Your task to perform on an android device: turn off data saver in the chrome app Image 0: 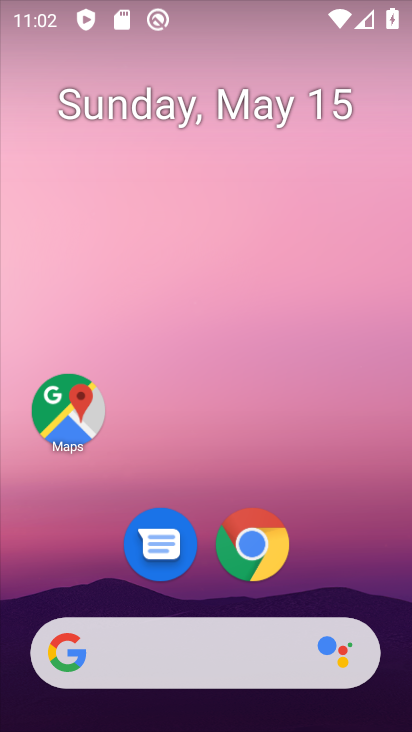
Step 0: click (264, 538)
Your task to perform on an android device: turn off data saver in the chrome app Image 1: 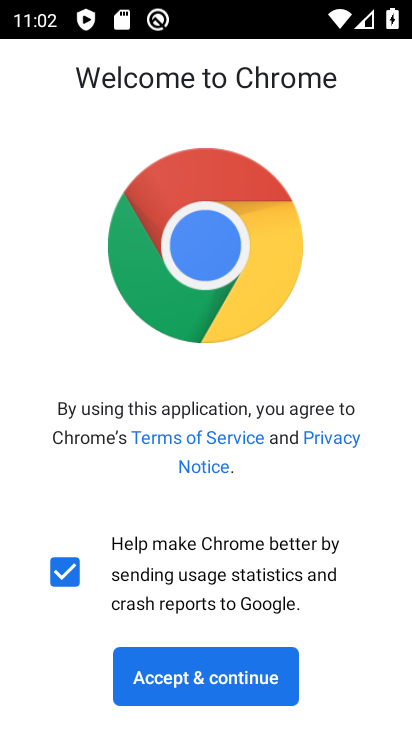
Step 1: click (267, 678)
Your task to perform on an android device: turn off data saver in the chrome app Image 2: 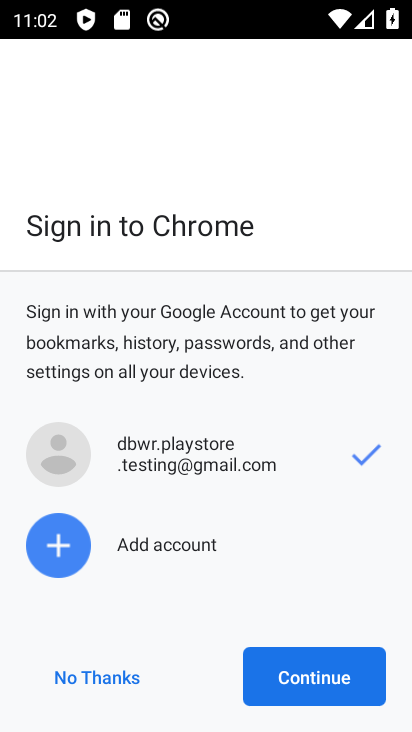
Step 2: click (267, 678)
Your task to perform on an android device: turn off data saver in the chrome app Image 3: 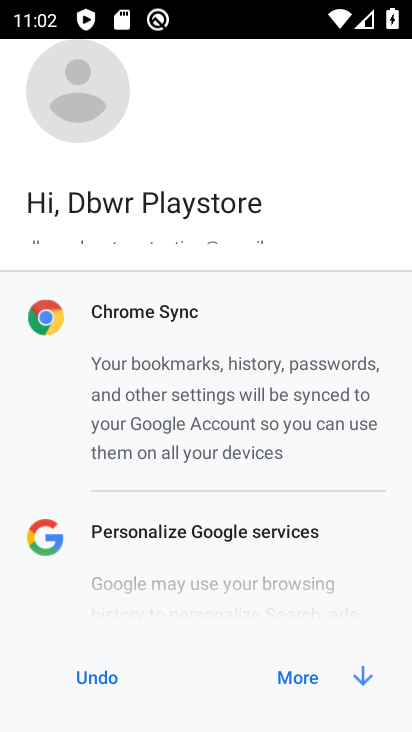
Step 3: click (267, 678)
Your task to perform on an android device: turn off data saver in the chrome app Image 4: 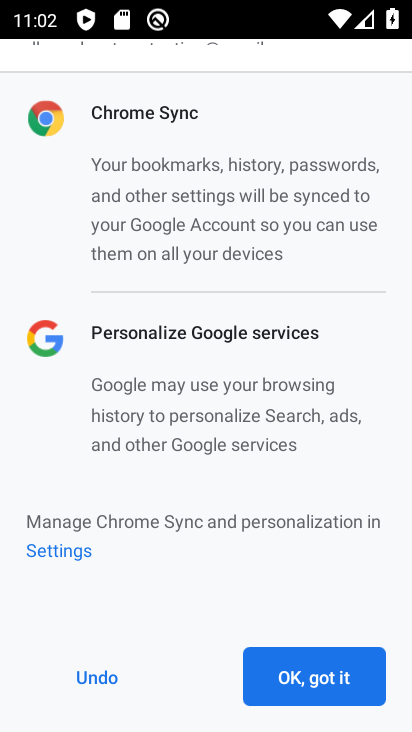
Step 4: click (267, 678)
Your task to perform on an android device: turn off data saver in the chrome app Image 5: 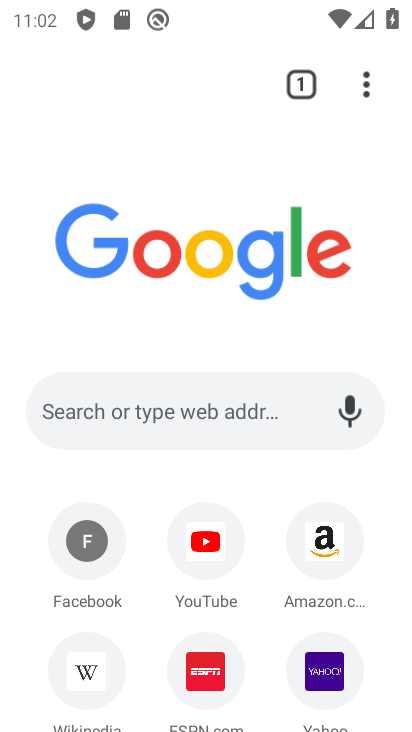
Step 5: click (368, 80)
Your task to perform on an android device: turn off data saver in the chrome app Image 6: 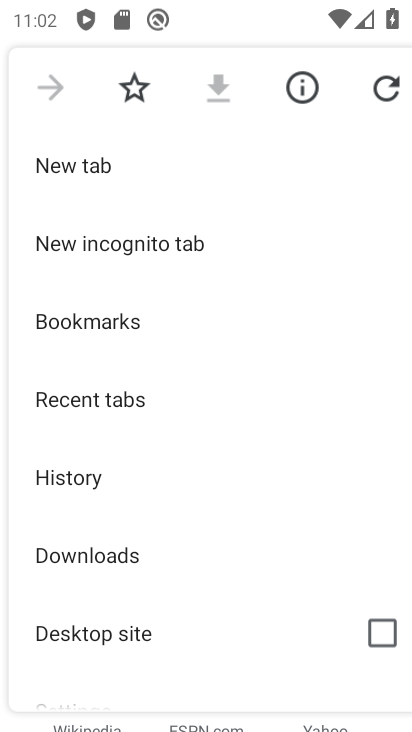
Step 6: drag from (231, 639) to (239, 232)
Your task to perform on an android device: turn off data saver in the chrome app Image 7: 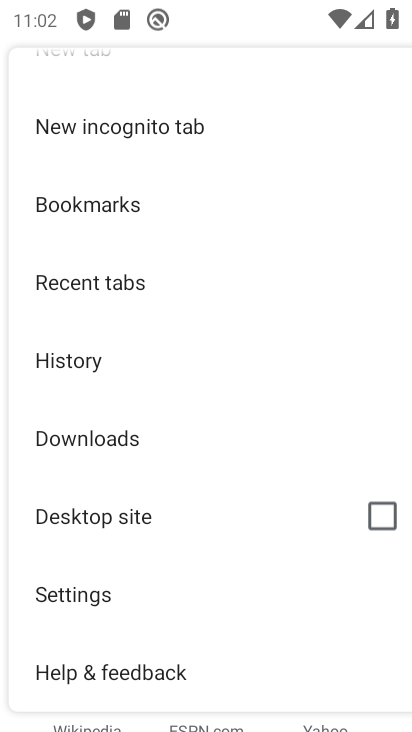
Step 7: click (228, 582)
Your task to perform on an android device: turn off data saver in the chrome app Image 8: 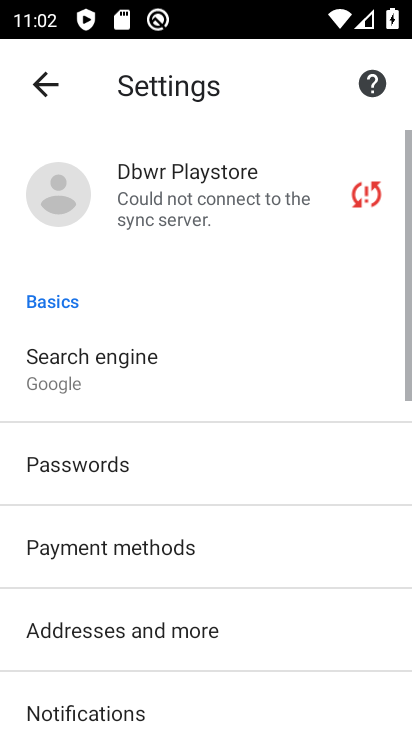
Step 8: drag from (323, 672) to (250, 154)
Your task to perform on an android device: turn off data saver in the chrome app Image 9: 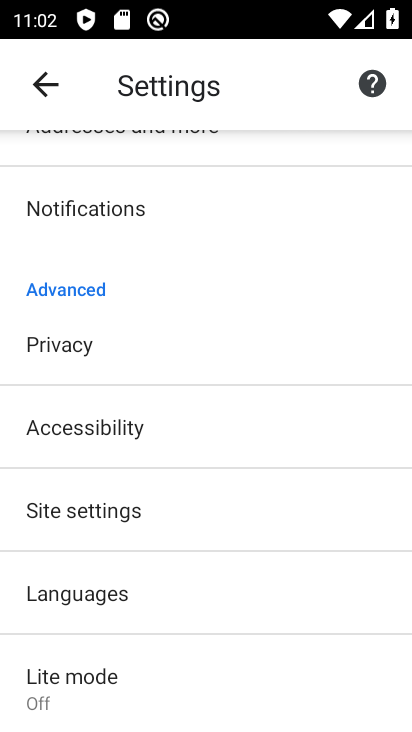
Step 9: click (212, 676)
Your task to perform on an android device: turn off data saver in the chrome app Image 10: 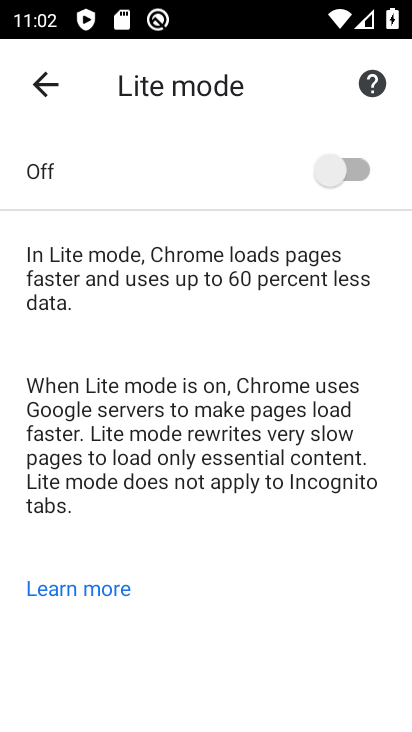
Step 10: task complete